Your task to perform on an android device: toggle wifi Image 0: 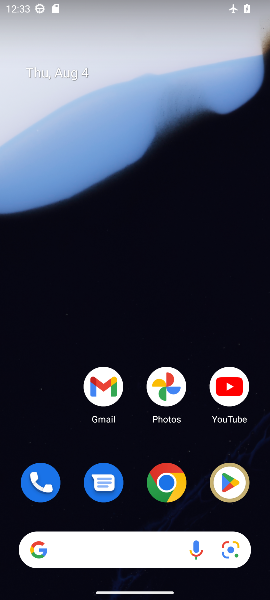
Step 0: drag from (133, 429) to (134, 142)
Your task to perform on an android device: toggle wifi Image 1: 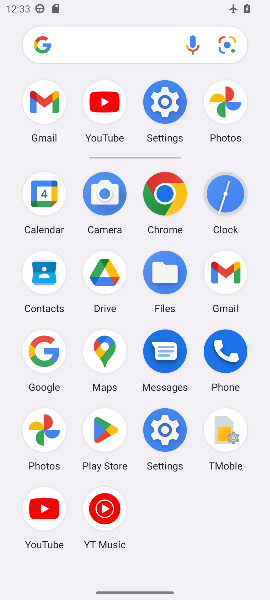
Step 1: click (158, 104)
Your task to perform on an android device: toggle wifi Image 2: 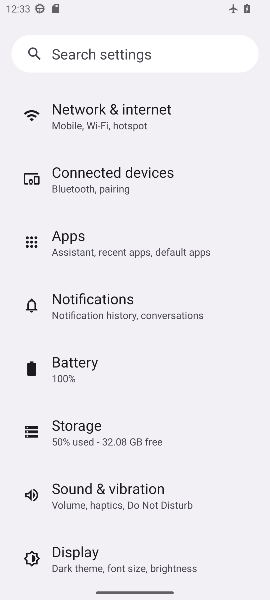
Step 2: click (165, 117)
Your task to perform on an android device: toggle wifi Image 3: 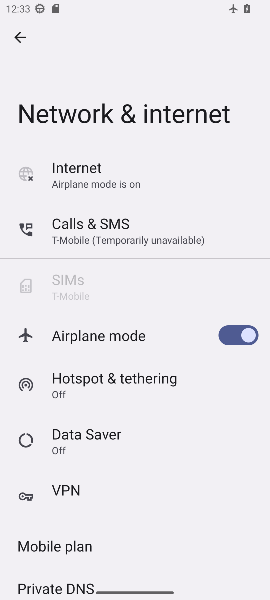
Step 3: drag from (126, 284) to (132, 386)
Your task to perform on an android device: toggle wifi Image 4: 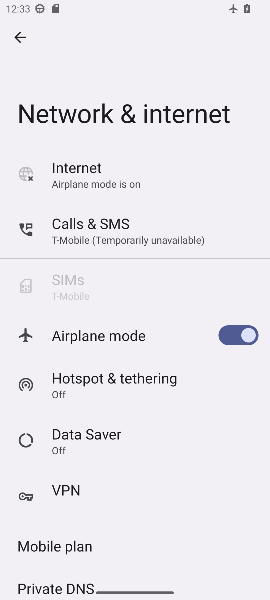
Step 4: click (116, 188)
Your task to perform on an android device: toggle wifi Image 5: 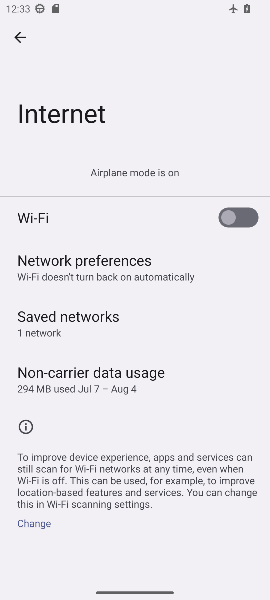
Step 5: click (244, 212)
Your task to perform on an android device: toggle wifi Image 6: 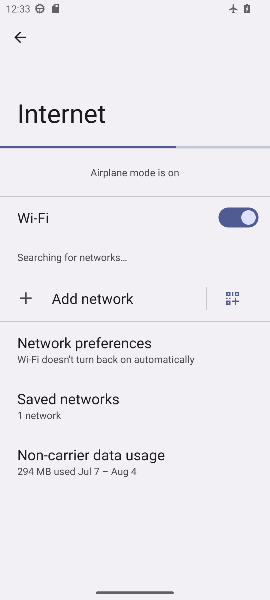
Step 6: task complete